Your task to perform on an android device: empty trash in google photos Image 0: 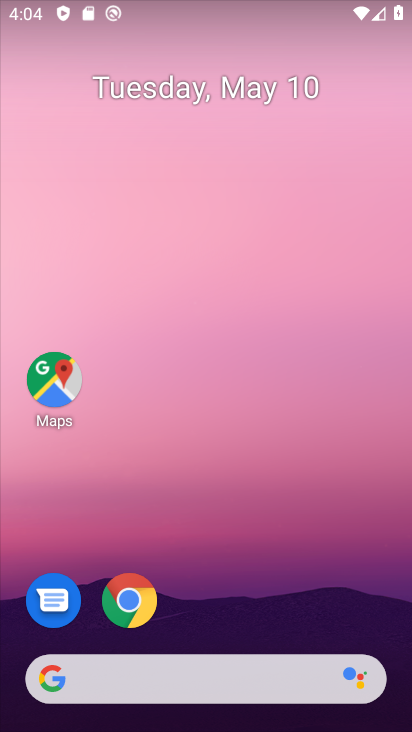
Step 0: drag from (270, 589) to (278, 87)
Your task to perform on an android device: empty trash in google photos Image 1: 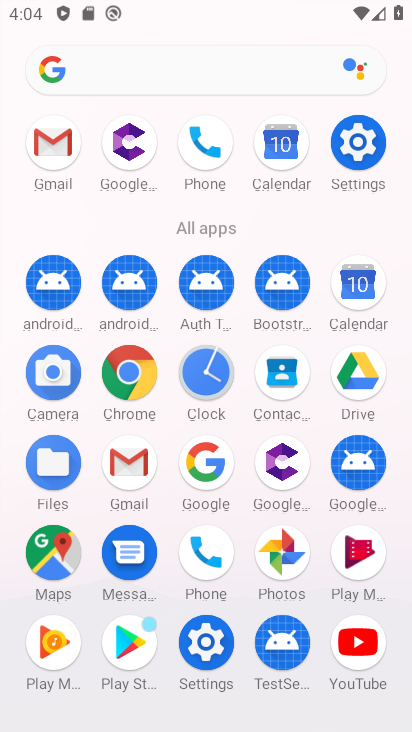
Step 1: click (289, 539)
Your task to perform on an android device: empty trash in google photos Image 2: 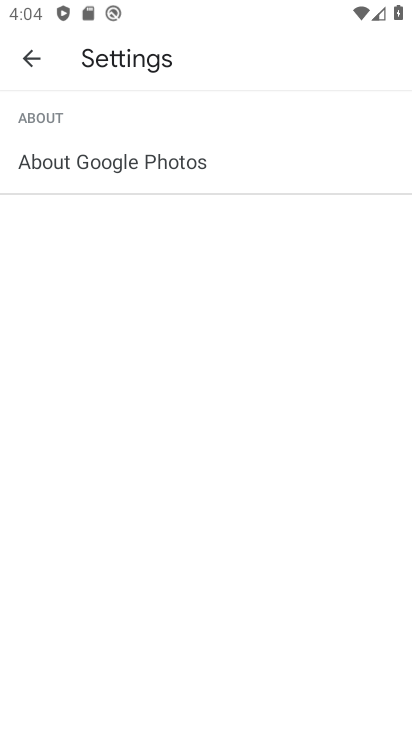
Step 2: press back button
Your task to perform on an android device: empty trash in google photos Image 3: 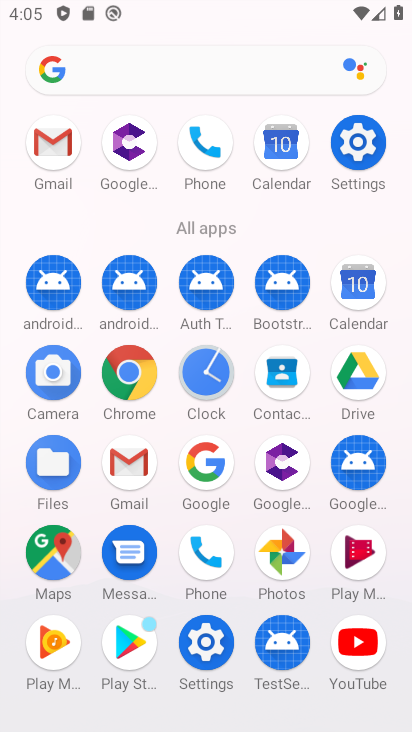
Step 3: drag from (104, 289) to (111, 382)
Your task to perform on an android device: empty trash in google photos Image 4: 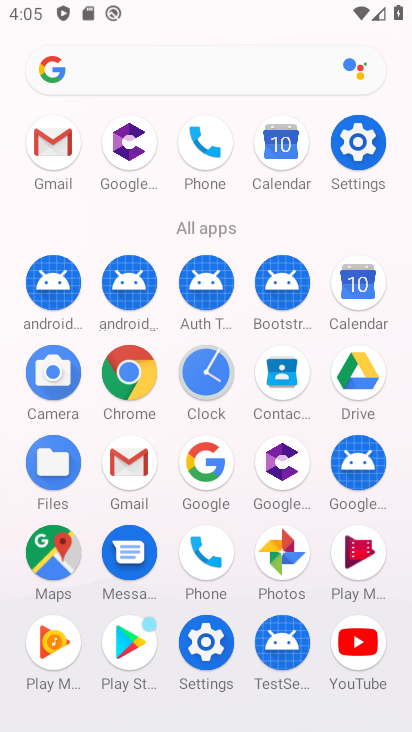
Step 4: click (284, 567)
Your task to perform on an android device: empty trash in google photos Image 5: 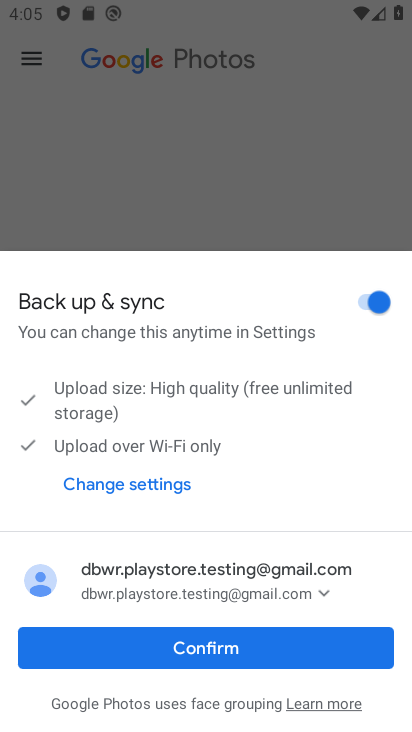
Step 5: click (362, 648)
Your task to perform on an android device: empty trash in google photos Image 6: 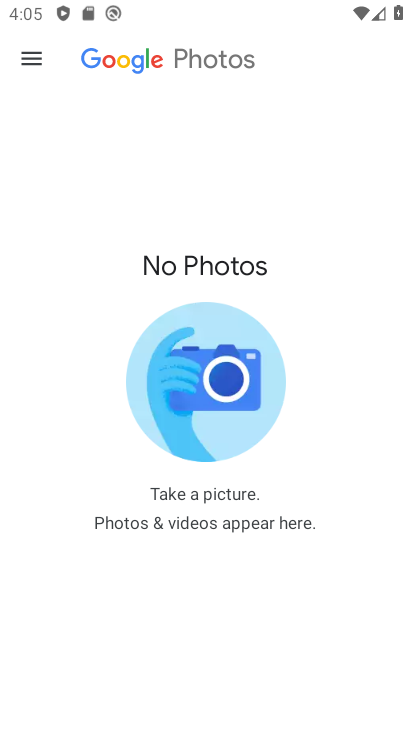
Step 6: click (31, 72)
Your task to perform on an android device: empty trash in google photos Image 7: 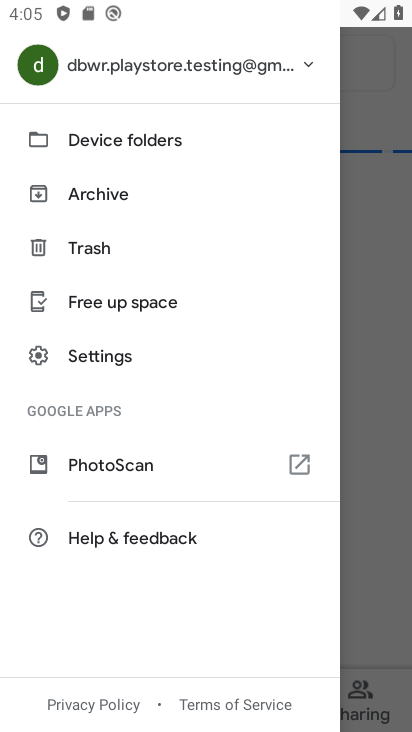
Step 7: click (109, 242)
Your task to perform on an android device: empty trash in google photos Image 8: 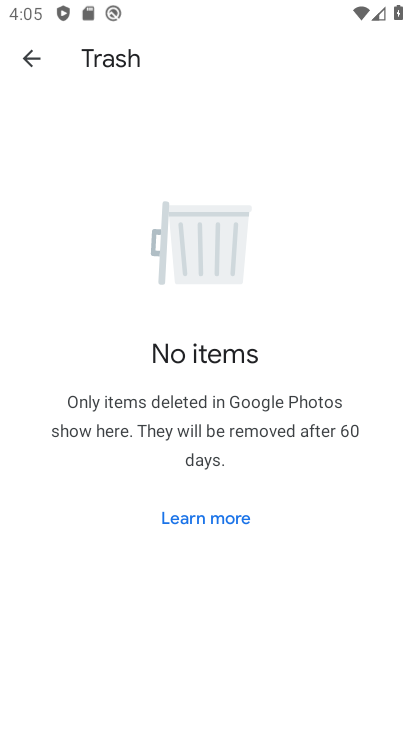
Step 8: task complete